Your task to perform on an android device: all mails in gmail Image 0: 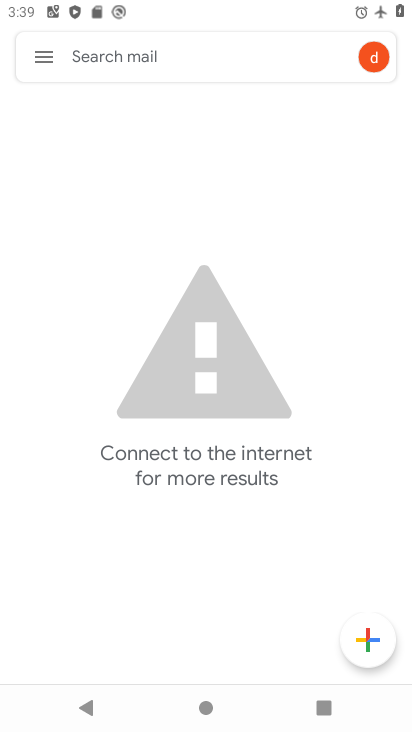
Step 0: press home button
Your task to perform on an android device: all mails in gmail Image 1: 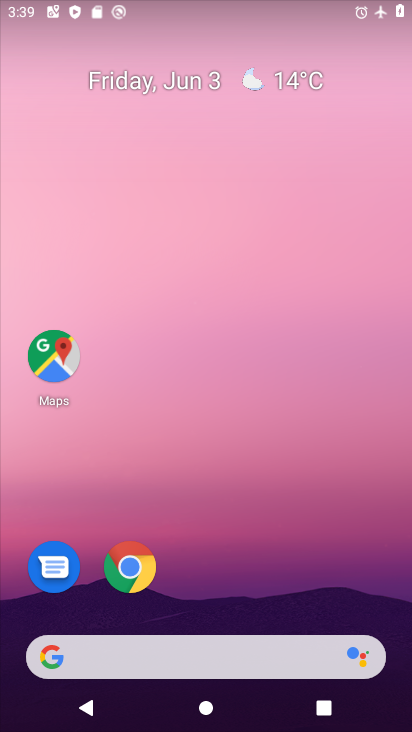
Step 1: drag from (253, 680) to (219, 131)
Your task to perform on an android device: all mails in gmail Image 2: 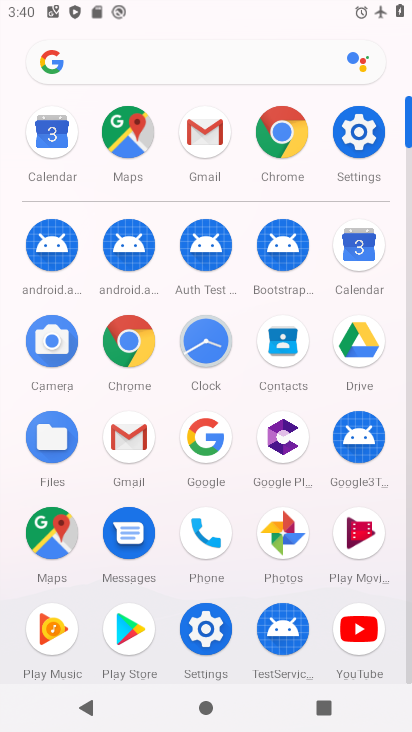
Step 2: click (192, 110)
Your task to perform on an android device: all mails in gmail Image 3: 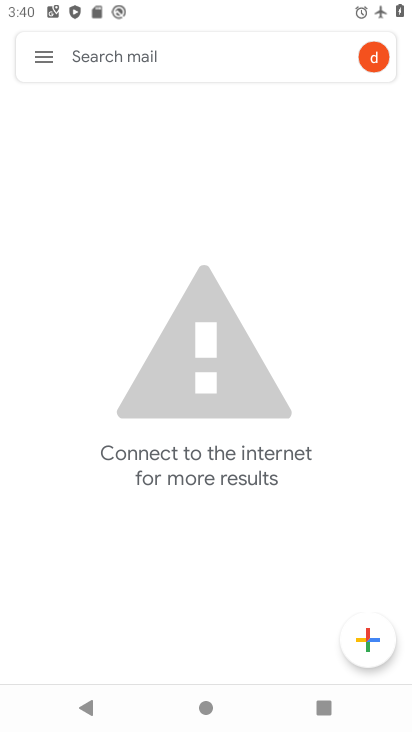
Step 3: click (43, 63)
Your task to perform on an android device: all mails in gmail Image 4: 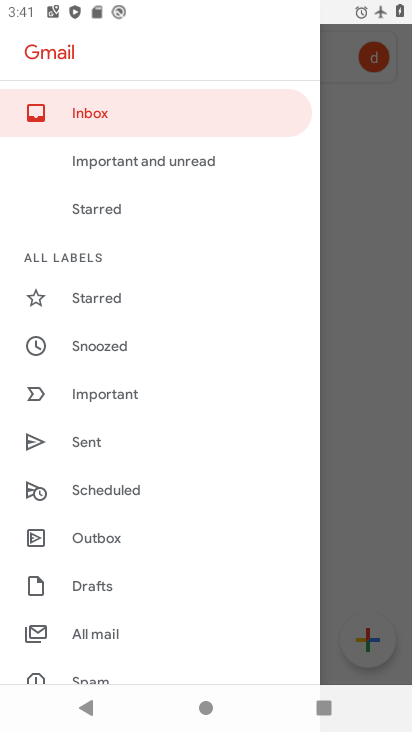
Step 4: click (116, 631)
Your task to perform on an android device: all mails in gmail Image 5: 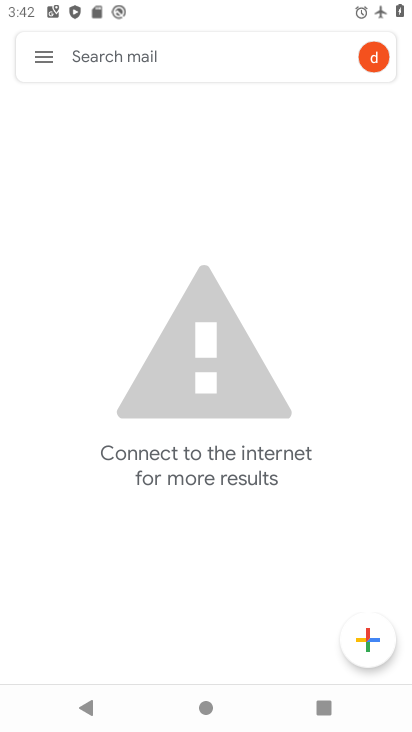
Step 5: task complete